Your task to perform on an android device: toggle airplane mode Image 0: 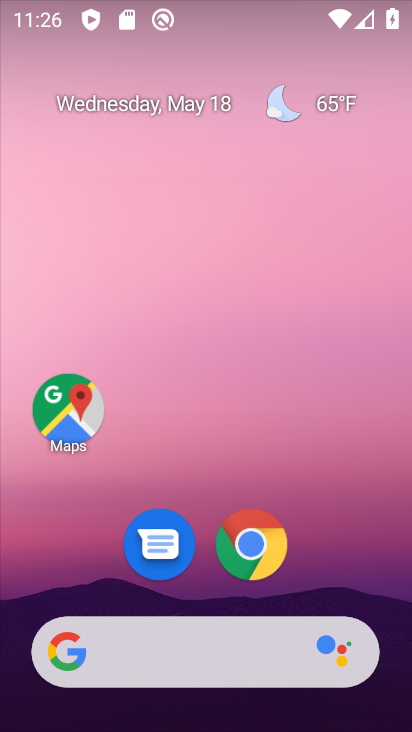
Step 0: drag from (372, 585) to (354, 119)
Your task to perform on an android device: toggle airplane mode Image 1: 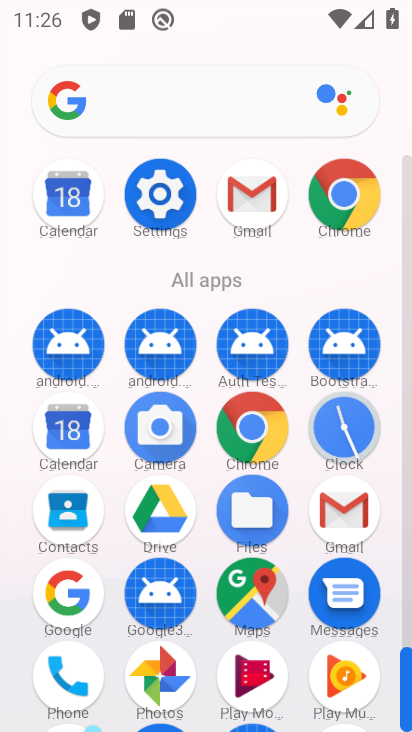
Step 1: click (164, 210)
Your task to perform on an android device: toggle airplane mode Image 2: 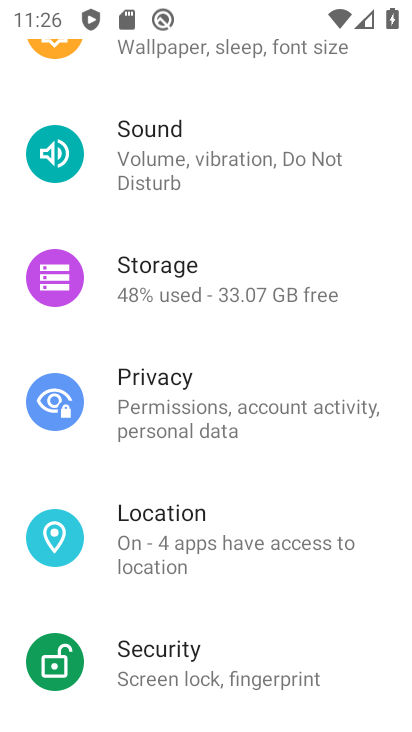
Step 2: drag from (367, 343) to (364, 400)
Your task to perform on an android device: toggle airplane mode Image 3: 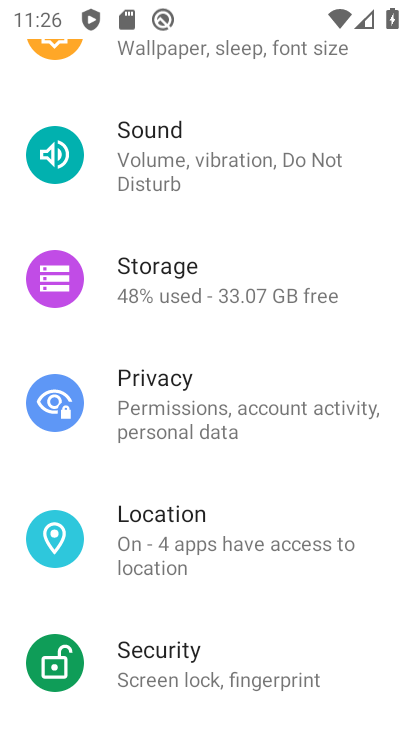
Step 3: drag from (363, 250) to (359, 411)
Your task to perform on an android device: toggle airplane mode Image 4: 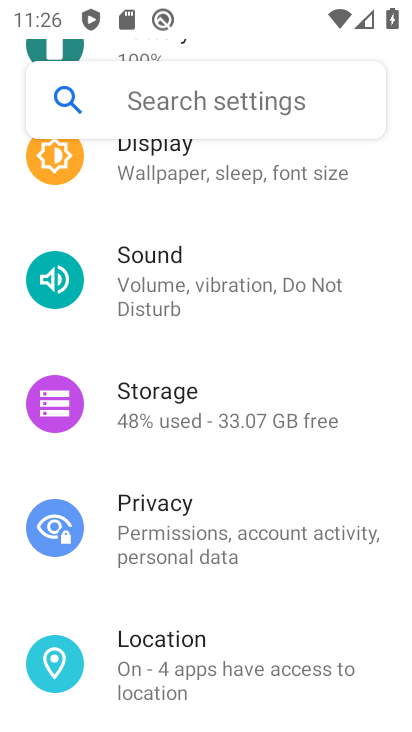
Step 4: drag from (372, 212) to (367, 377)
Your task to perform on an android device: toggle airplane mode Image 5: 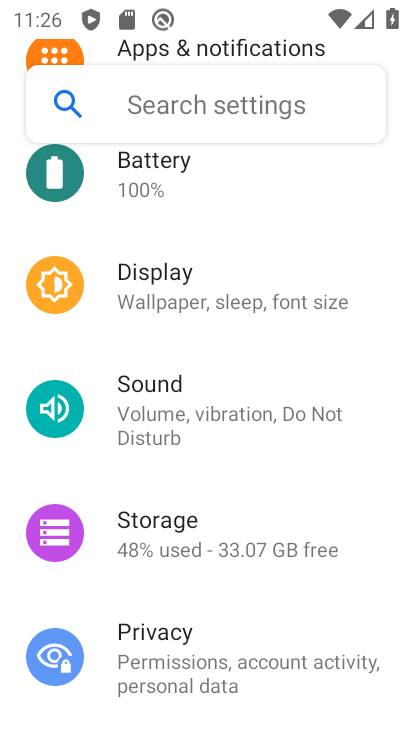
Step 5: drag from (369, 207) to (369, 357)
Your task to perform on an android device: toggle airplane mode Image 6: 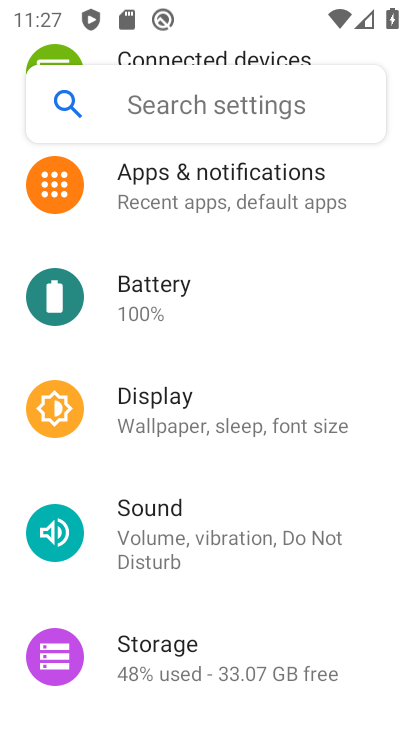
Step 6: drag from (376, 196) to (366, 338)
Your task to perform on an android device: toggle airplane mode Image 7: 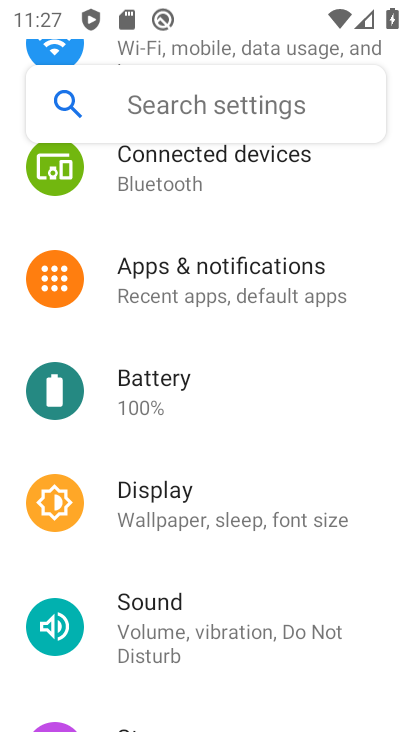
Step 7: drag from (371, 182) to (362, 323)
Your task to perform on an android device: toggle airplane mode Image 8: 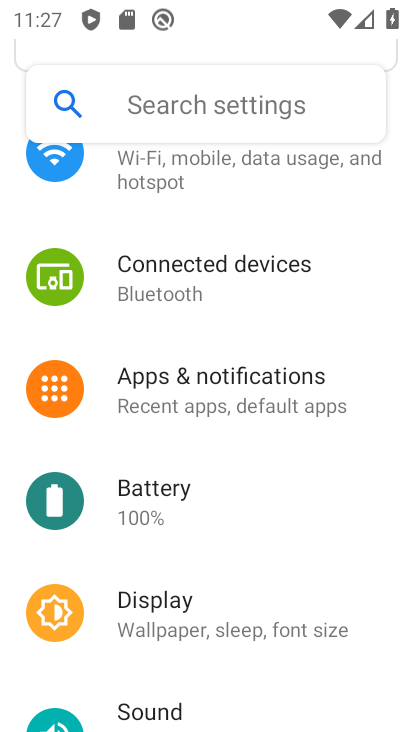
Step 8: drag from (352, 193) to (349, 350)
Your task to perform on an android device: toggle airplane mode Image 9: 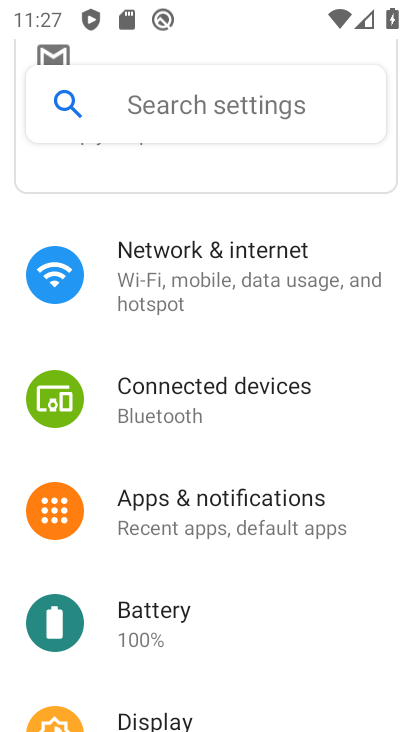
Step 9: click (282, 275)
Your task to perform on an android device: toggle airplane mode Image 10: 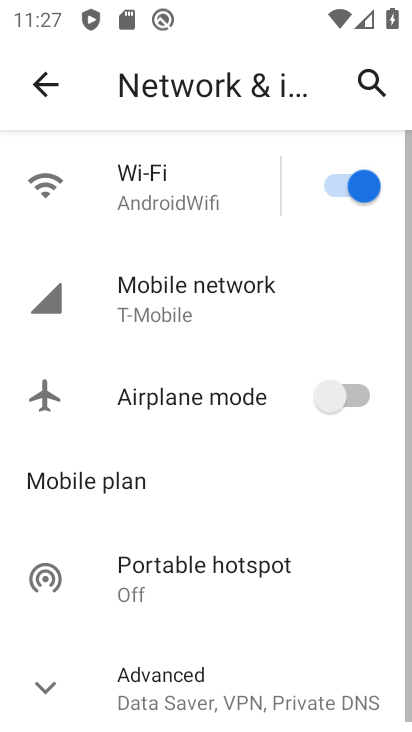
Step 10: click (352, 395)
Your task to perform on an android device: toggle airplane mode Image 11: 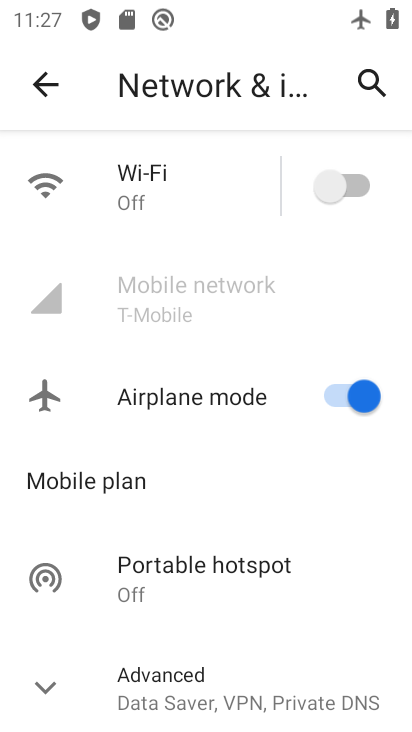
Step 11: task complete